Your task to perform on an android device: Turn off the flashlight Image 0: 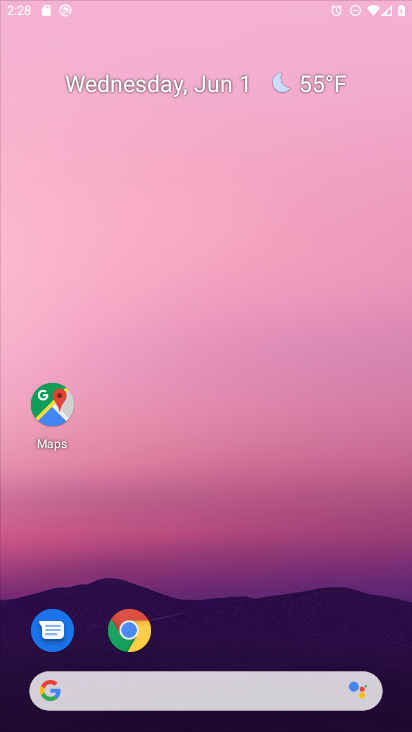
Step 0: drag from (235, 127) to (358, 59)
Your task to perform on an android device: Turn off the flashlight Image 1: 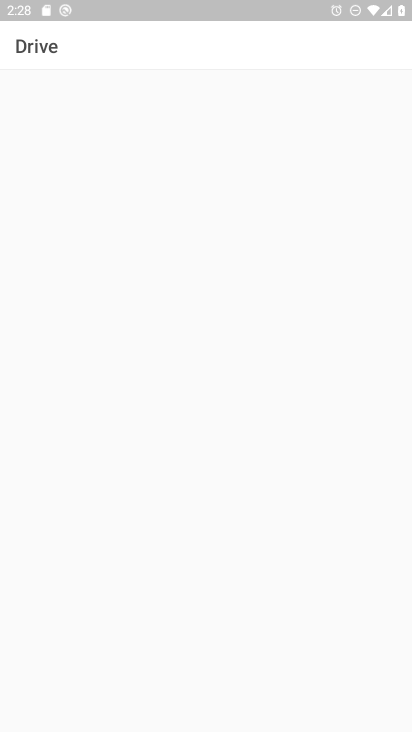
Step 1: task complete